Your task to perform on an android device: Open Amazon Image 0: 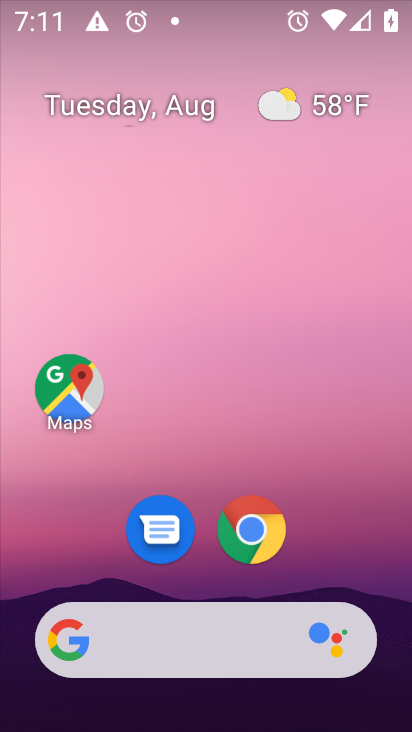
Step 0: press home button
Your task to perform on an android device: Open Amazon Image 1: 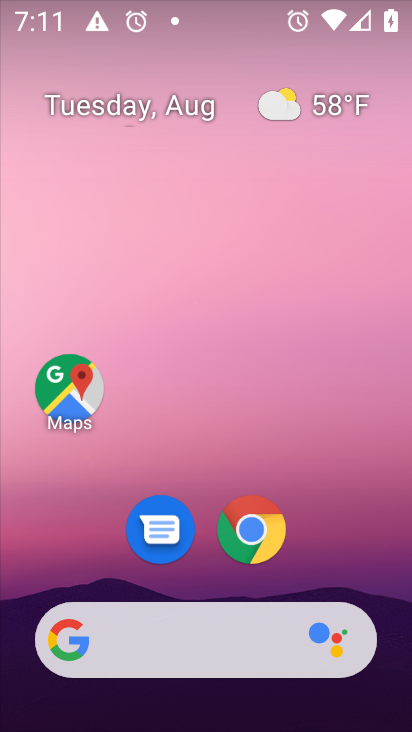
Step 1: click (67, 644)
Your task to perform on an android device: Open Amazon Image 2: 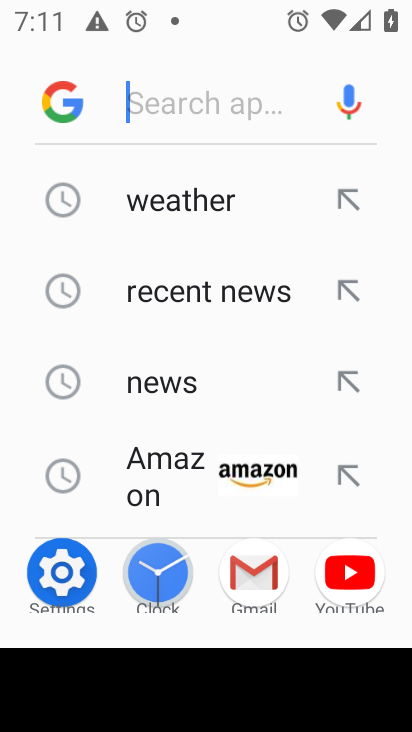
Step 2: click (159, 470)
Your task to perform on an android device: Open Amazon Image 3: 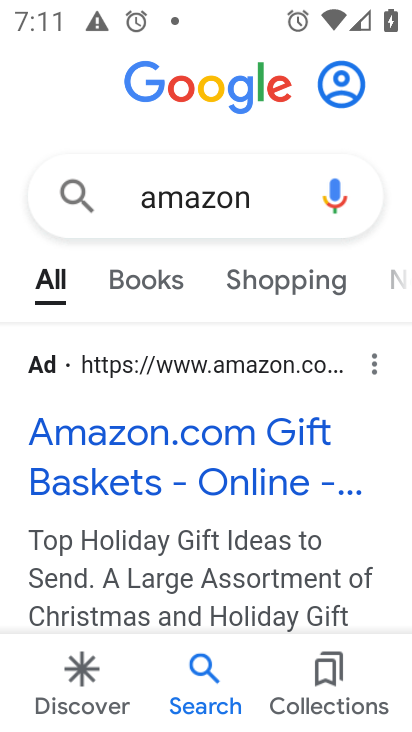
Step 3: click (137, 433)
Your task to perform on an android device: Open Amazon Image 4: 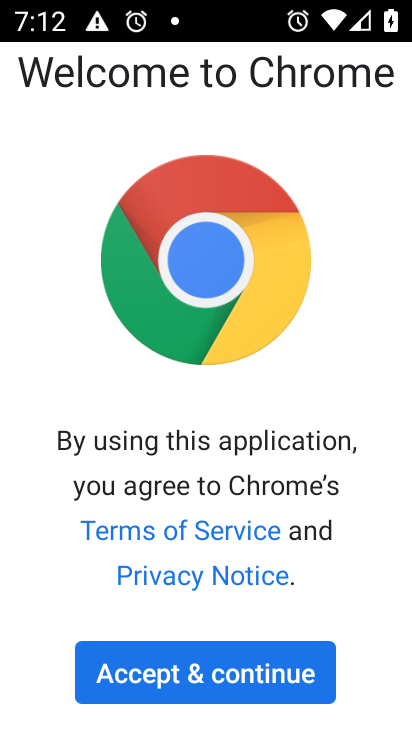
Step 4: click (203, 667)
Your task to perform on an android device: Open Amazon Image 5: 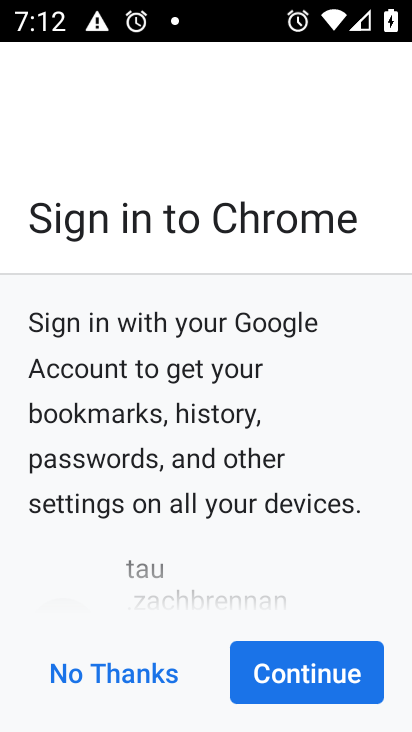
Step 5: click (326, 675)
Your task to perform on an android device: Open Amazon Image 6: 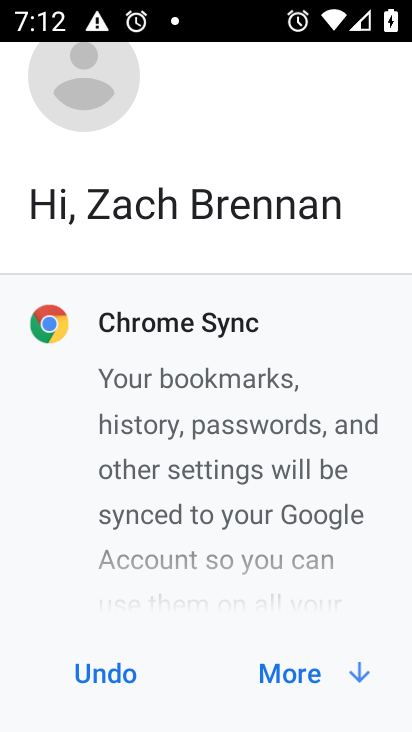
Step 6: click (319, 675)
Your task to perform on an android device: Open Amazon Image 7: 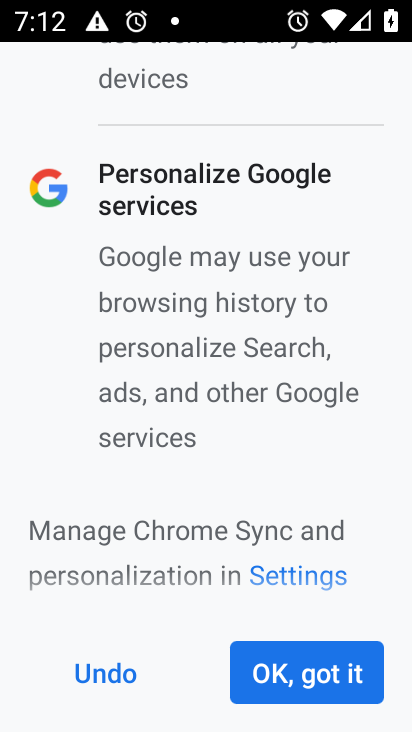
Step 7: click (317, 677)
Your task to perform on an android device: Open Amazon Image 8: 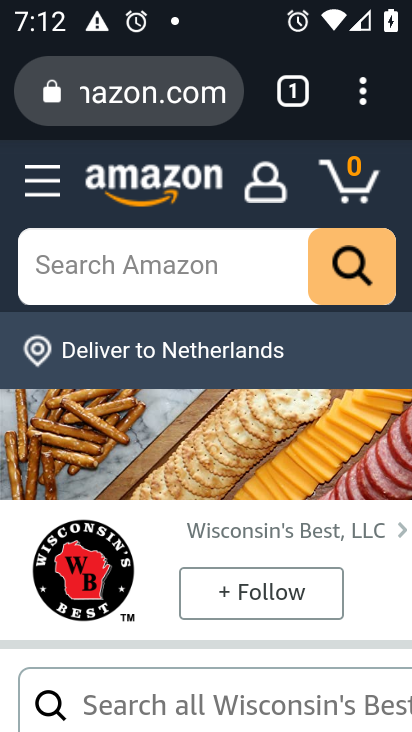
Step 8: task complete